Your task to perform on an android device: Open my contact list Image 0: 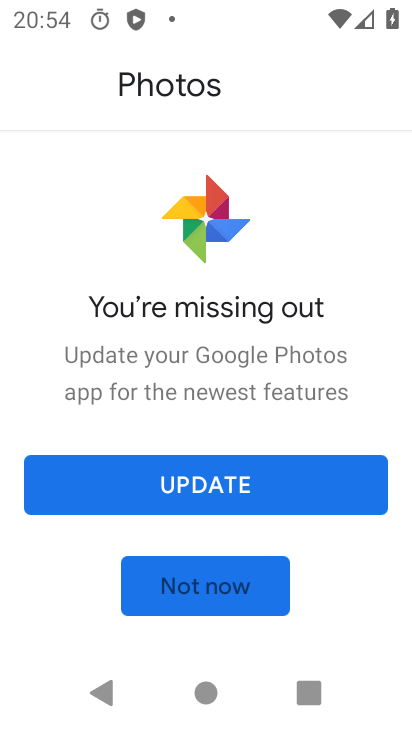
Step 0: click (191, 584)
Your task to perform on an android device: Open my contact list Image 1: 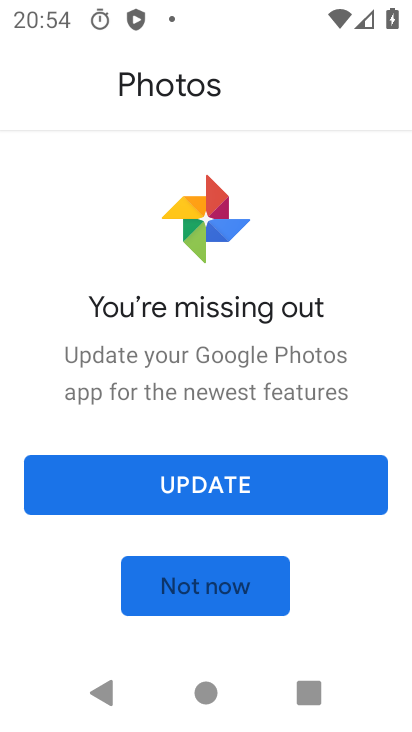
Step 1: click (191, 584)
Your task to perform on an android device: Open my contact list Image 2: 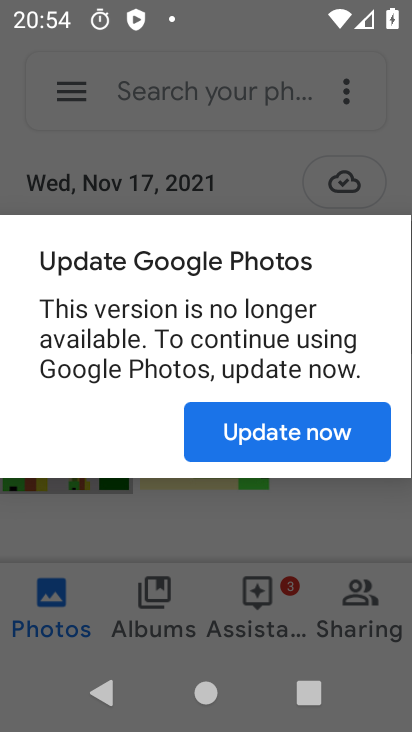
Step 2: click (345, 429)
Your task to perform on an android device: Open my contact list Image 3: 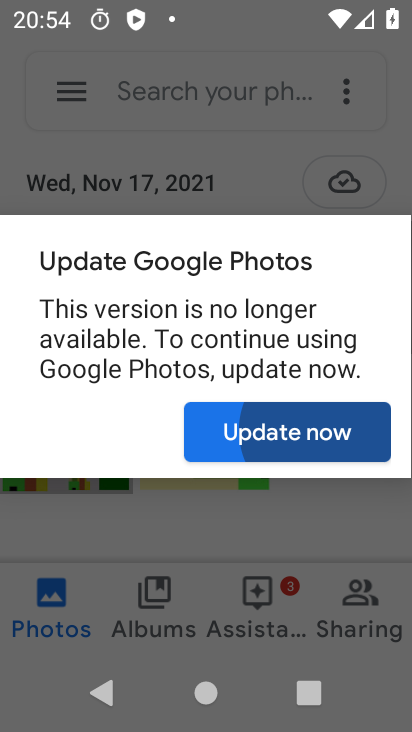
Step 3: click (338, 429)
Your task to perform on an android device: Open my contact list Image 4: 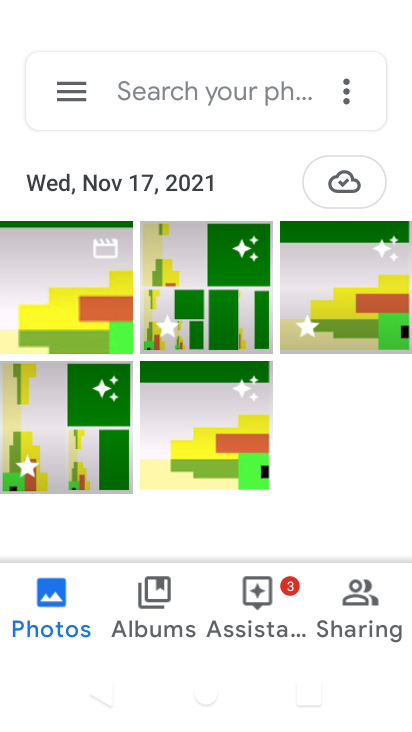
Step 4: click (325, 423)
Your task to perform on an android device: Open my contact list Image 5: 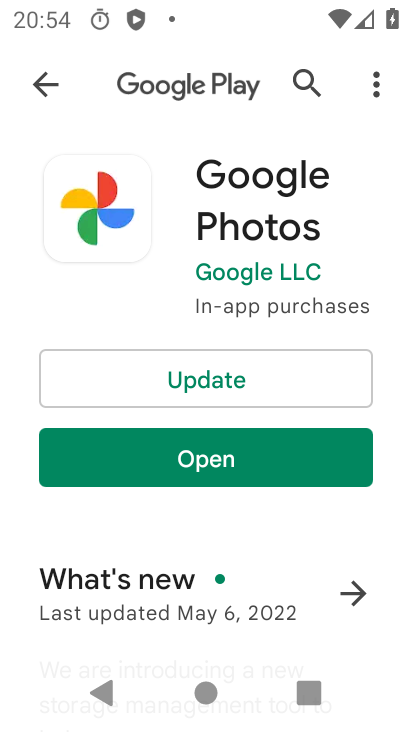
Step 5: click (228, 459)
Your task to perform on an android device: Open my contact list Image 6: 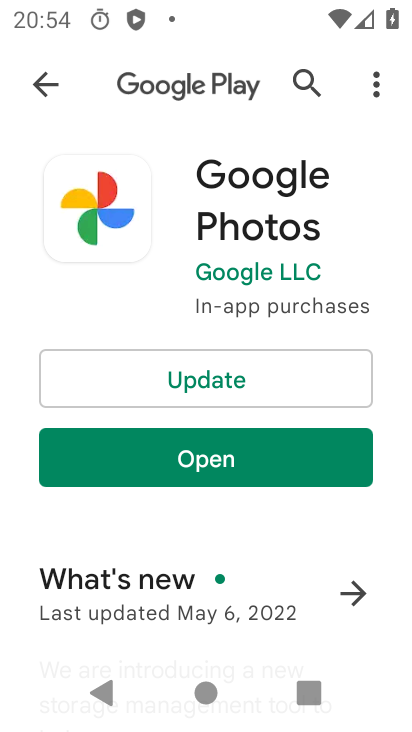
Step 6: click (228, 459)
Your task to perform on an android device: Open my contact list Image 7: 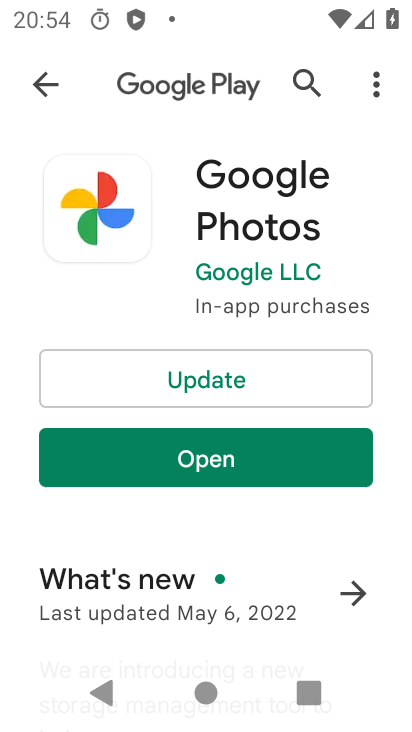
Step 7: click (228, 459)
Your task to perform on an android device: Open my contact list Image 8: 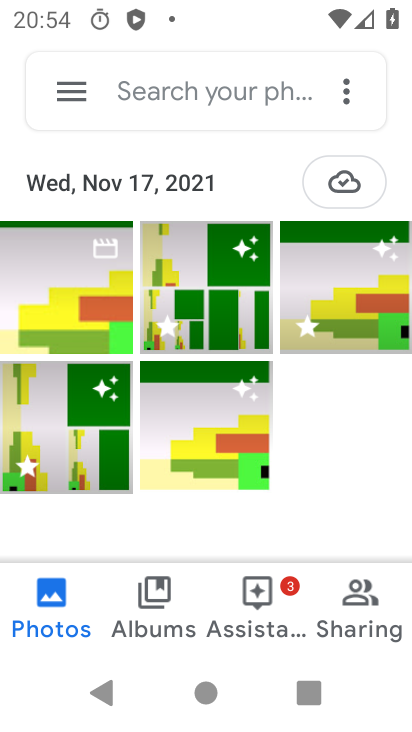
Step 8: press back button
Your task to perform on an android device: Open my contact list Image 9: 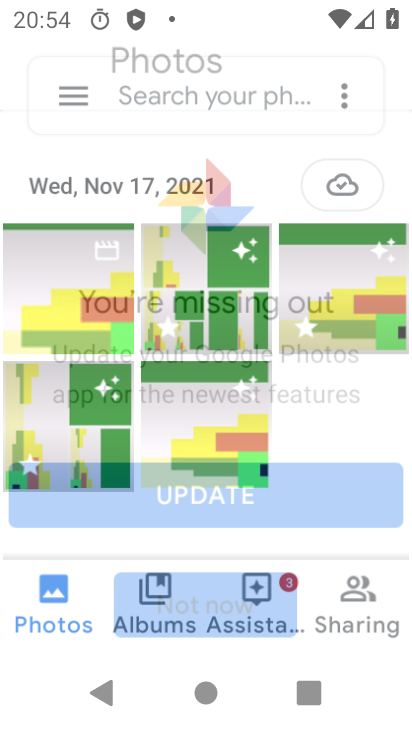
Step 9: press back button
Your task to perform on an android device: Open my contact list Image 10: 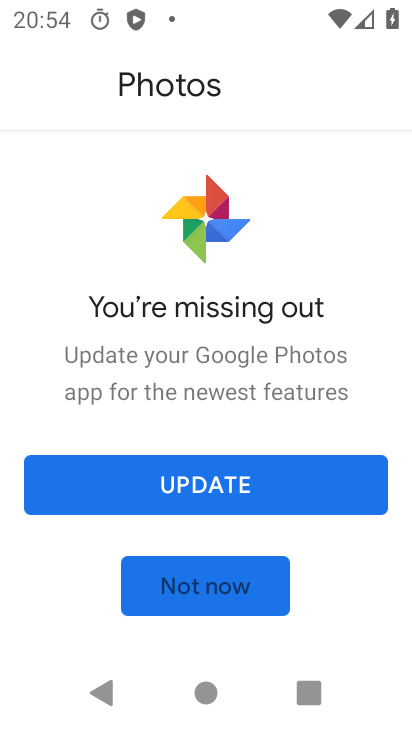
Step 10: press back button
Your task to perform on an android device: Open my contact list Image 11: 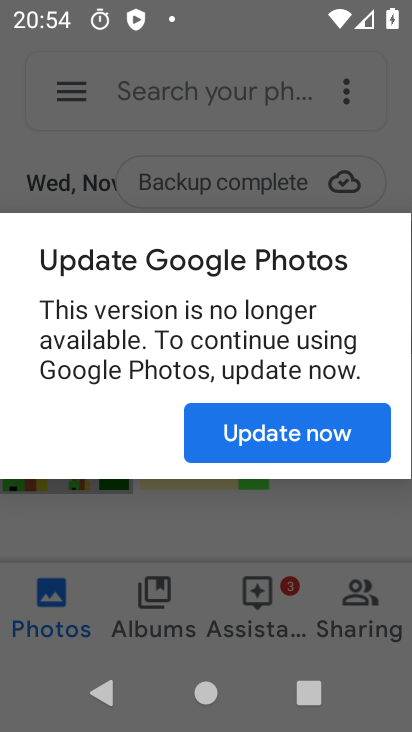
Step 11: press back button
Your task to perform on an android device: Open my contact list Image 12: 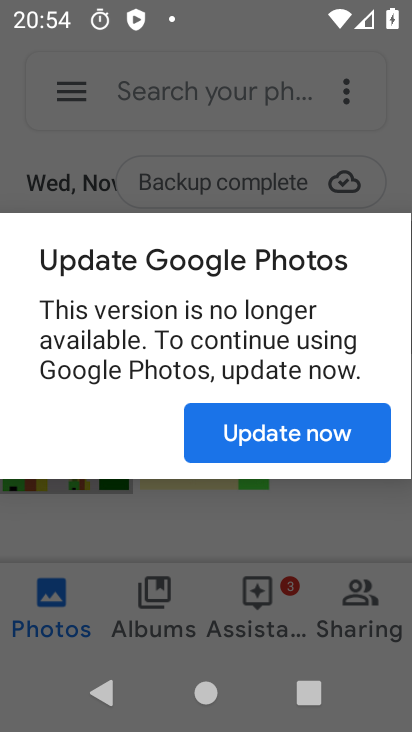
Step 12: click (321, 431)
Your task to perform on an android device: Open my contact list Image 13: 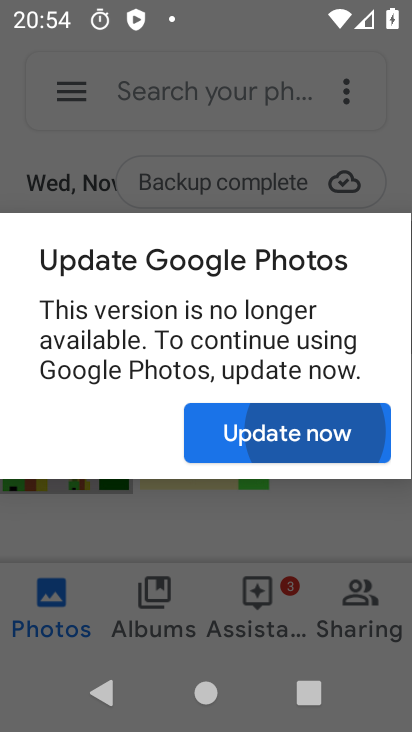
Step 13: click (314, 430)
Your task to perform on an android device: Open my contact list Image 14: 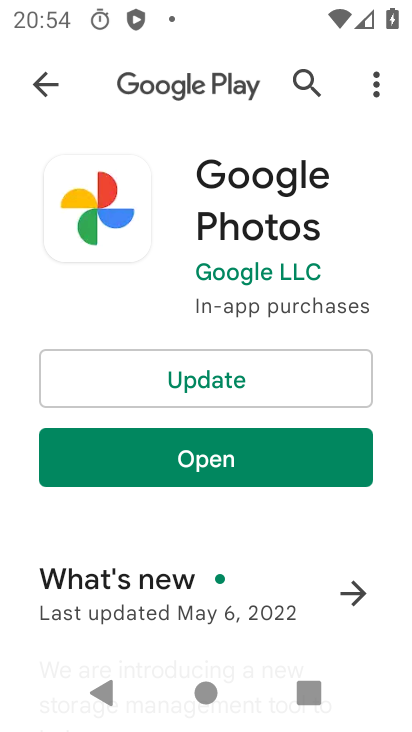
Step 14: click (225, 454)
Your task to perform on an android device: Open my contact list Image 15: 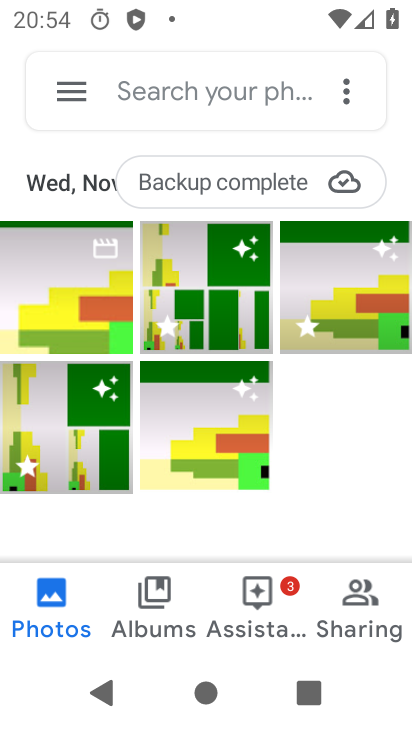
Step 15: press home button
Your task to perform on an android device: Open my contact list Image 16: 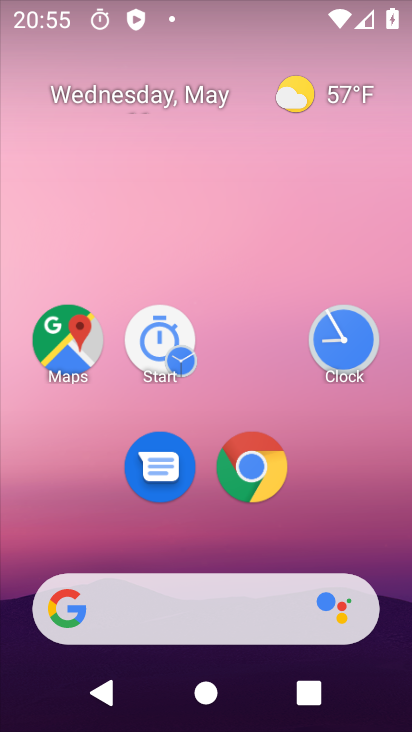
Step 16: click (210, 369)
Your task to perform on an android device: Open my contact list Image 17: 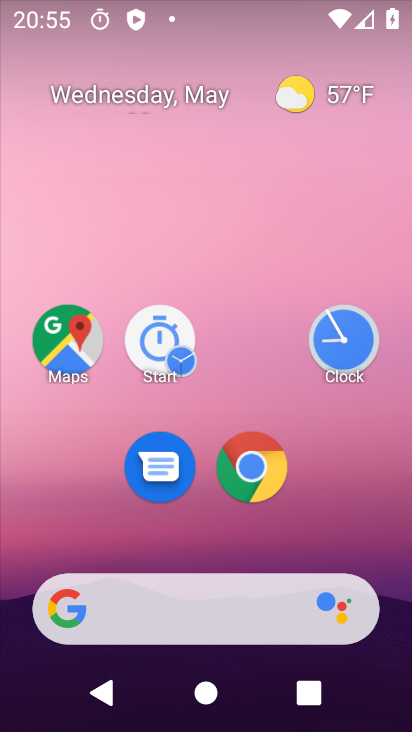
Step 17: drag from (358, 564) to (131, 2)
Your task to perform on an android device: Open my contact list Image 18: 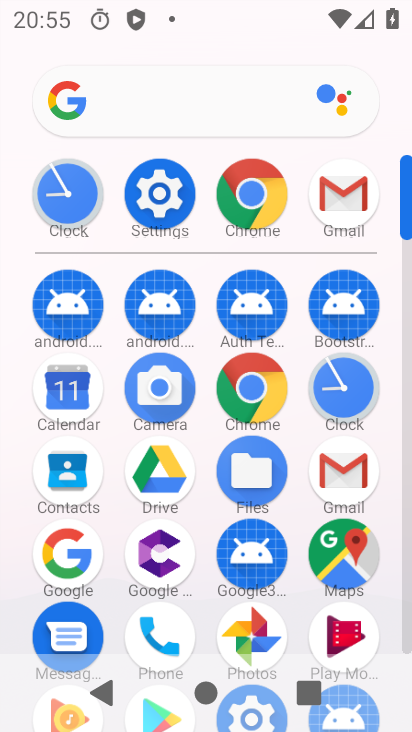
Step 18: drag from (283, 468) to (150, 106)
Your task to perform on an android device: Open my contact list Image 19: 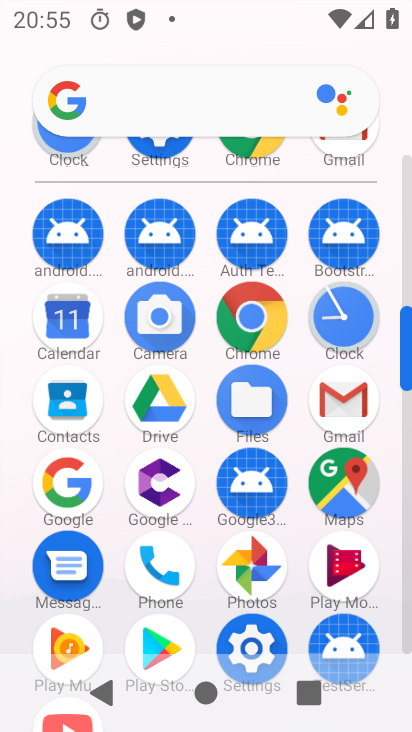
Step 19: click (71, 407)
Your task to perform on an android device: Open my contact list Image 20: 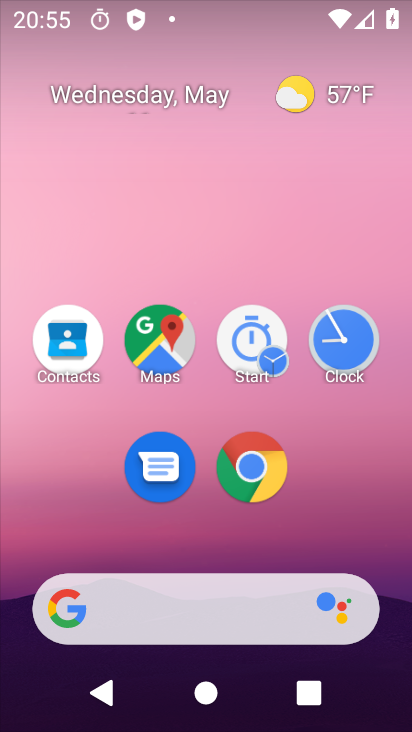
Step 20: click (70, 356)
Your task to perform on an android device: Open my contact list Image 21: 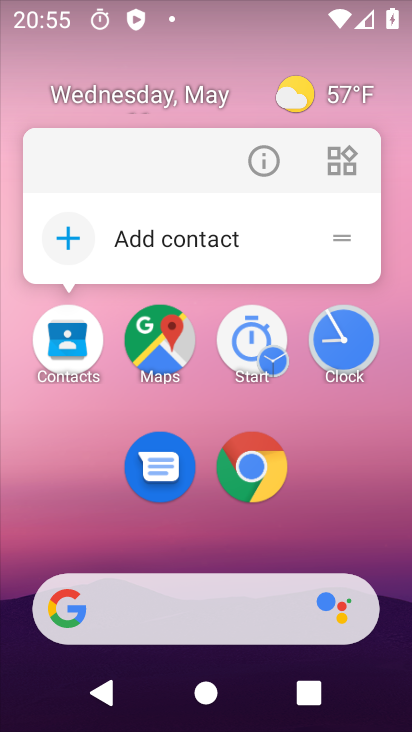
Step 21: click (58, 356)
Your task to perform on an android device: Open my contact list Image 22: 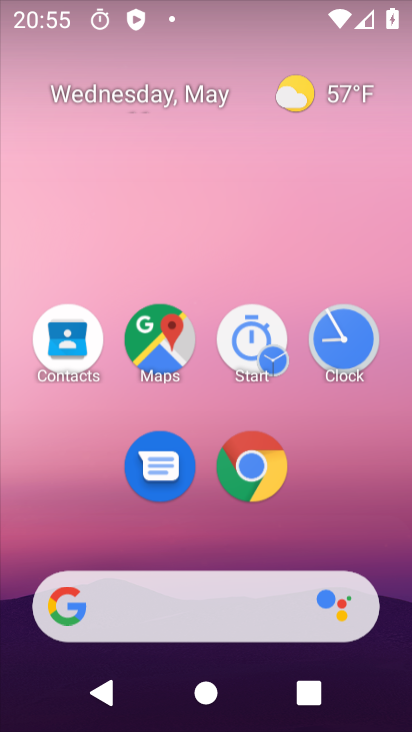
Step 22: click (44, 323)
Your task to perform on an android device: Open my contact list Image 23: 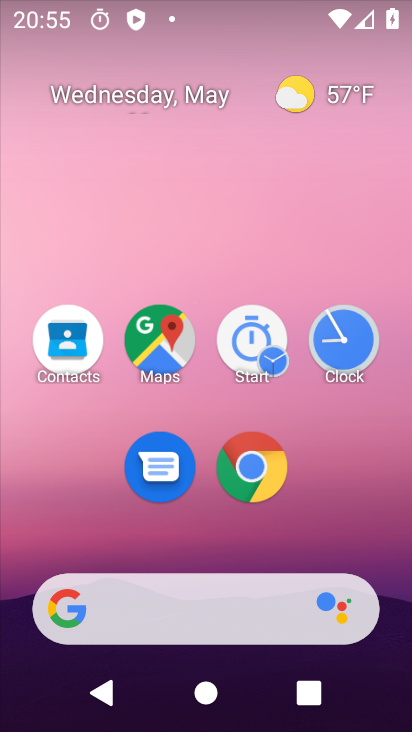
Step 23: click (38, 312)
Your task to perform on an android device: Open my contact list Image 24: 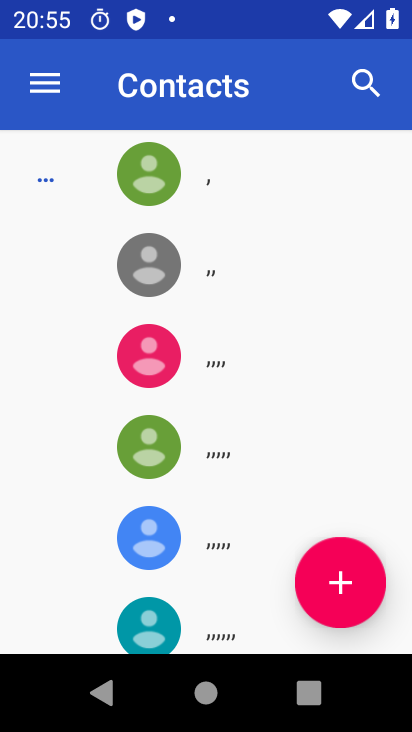
Step 24: click (349, 581)
Your task to perform on an android device: Open my contact list Image 25: 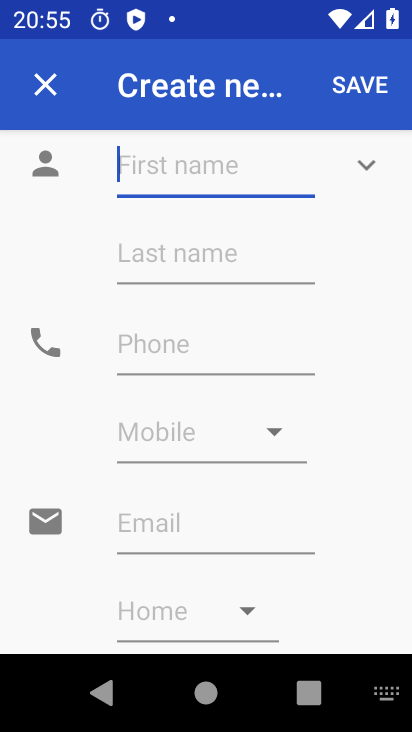
Step 25: click (44, 91)
Your task to perform on an android device: Open my contact list Image 26: 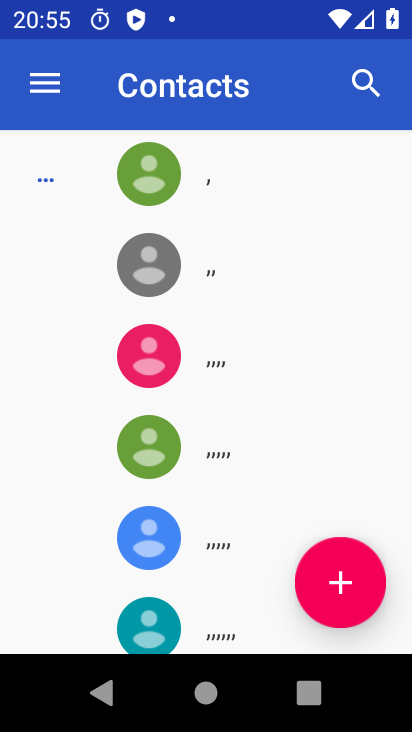
Step 26: task complete